Your task to perform on an android device: find which apps use the phone's location Image 0: 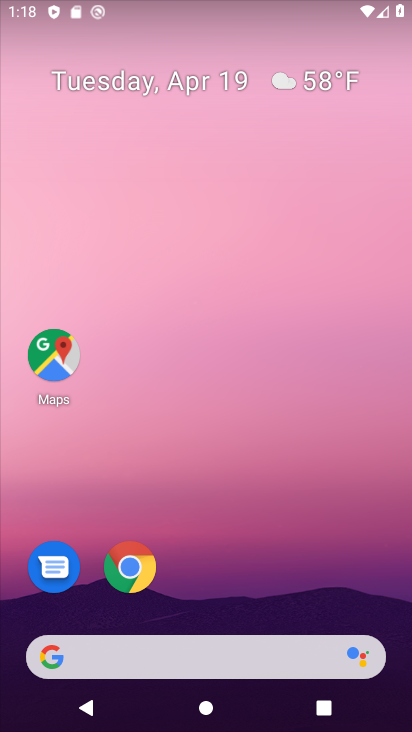
Step 0: drag from (379, 594) to (355, 25)
Your task to perform on an android device: find which apps use the phone's location Image 1: 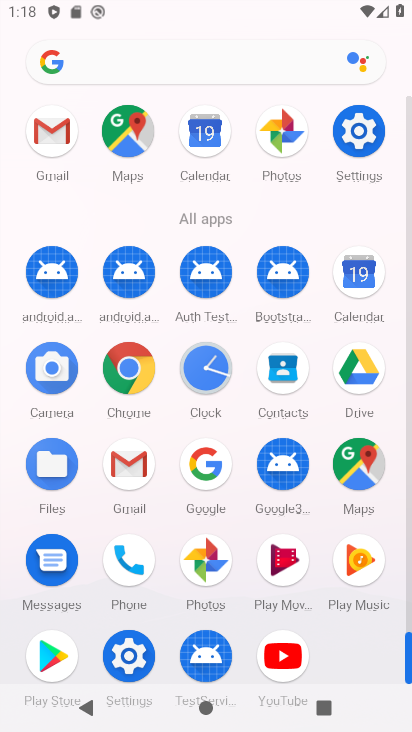
Step 1: click (128, 652)
Your task to perform on an android device: find which apps use the phone's location Image 2: 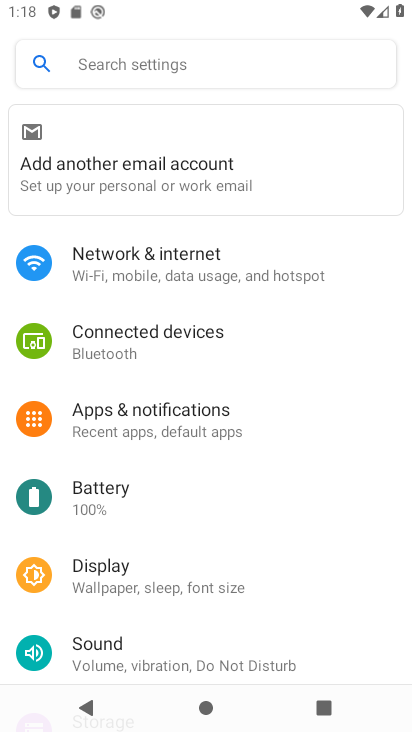
Step 2: drag from (240, 535) to (282, 174)
Your task to perform on an android device: find which apps use the phone's location Image 3: 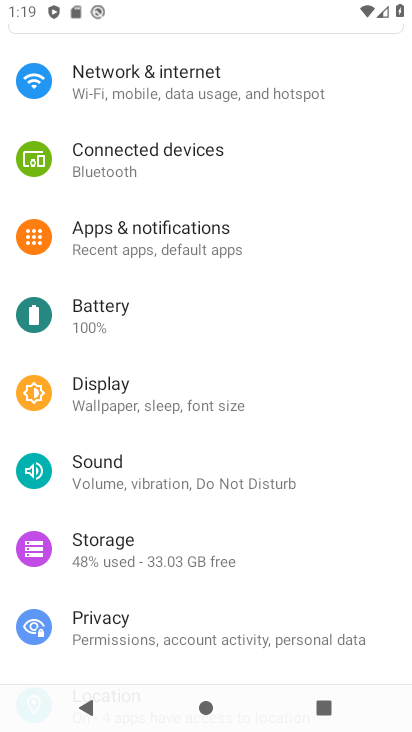
Step 3: drag from (350, 614) to (320, 255)
Your task to perform on an android device: find which apps use the phone's location Image 4: 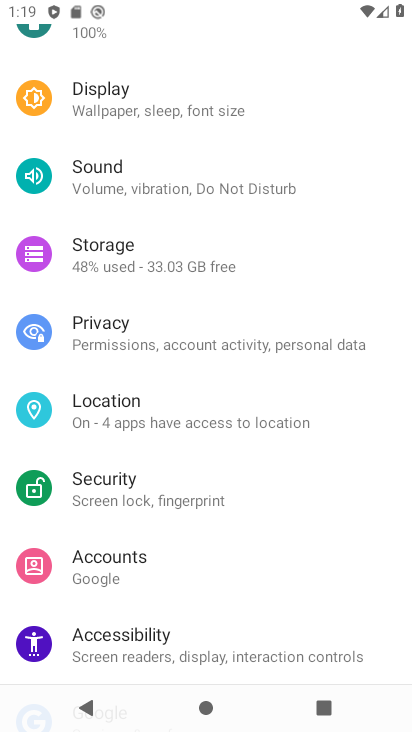
Step 4: click (109, 411)
Your task to perform on an android device: find which apps use the phone's location Image 5: 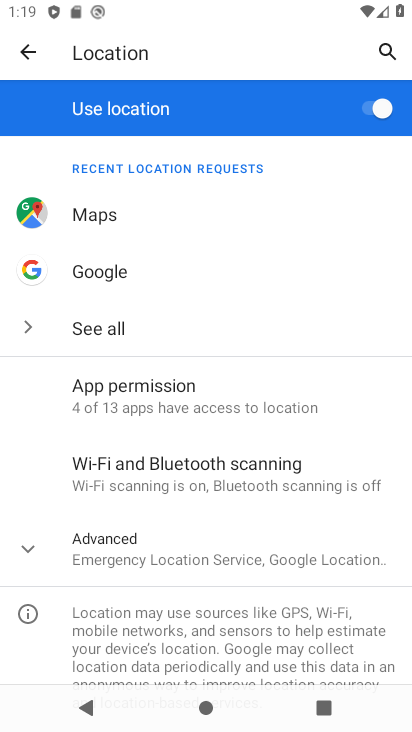
Step 5: click (118, 390)
Your task to perform on an android device: find which apps use the phone's location Image 6: 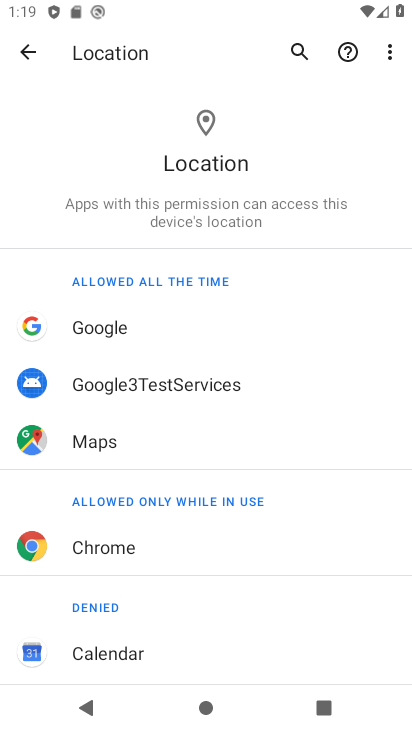
Step 6: drag from (276, 570) to (281, 131)
Your task to perform on an android device: find which apps use the phone's location Image 7: 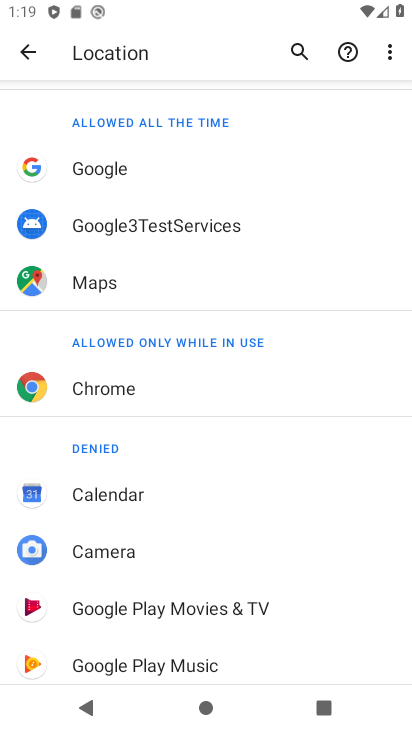
Step 7: drag from (229, 619) to (284, 240)
Your task to perform on an android device: find which apps use the phone's location Image 8: 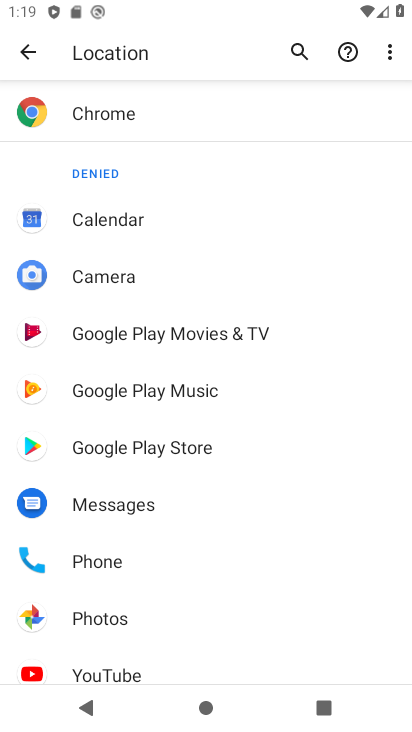
Step 8: click (87, 612)
Your task to perform on an android device: find which apps use the phone's location Image 9: 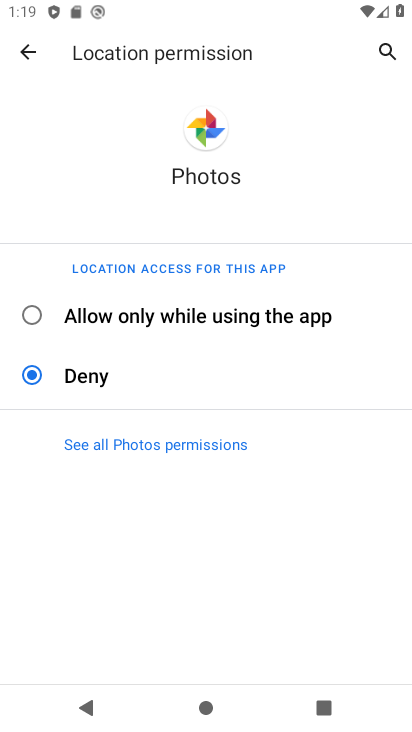
Step 9: task complete